Your task to perform on an android device: delete browsing data in the chrome app Image 0: 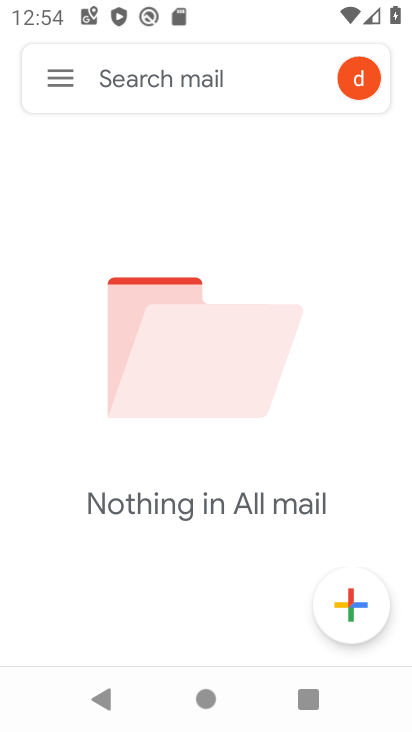
Step 0: press home button
Your task to perform on an android device: delete browsing data in the chrome app Image 1: 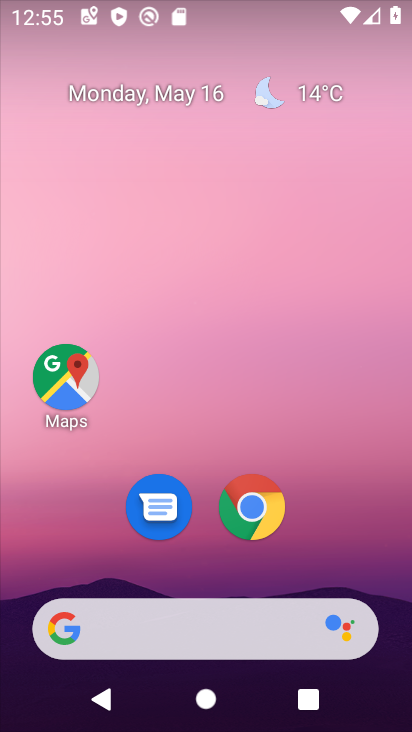
Step 1: click (255, 506)
Your task to perform on an android device: delete browsing data in the chrome app Image 2: 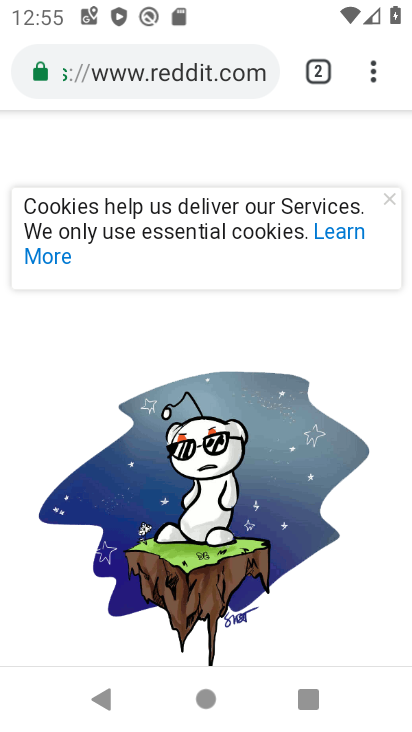
Step 2: click (376, 60)
Your task to perform on an android device: delete browsing data in the chrome app Image 3: 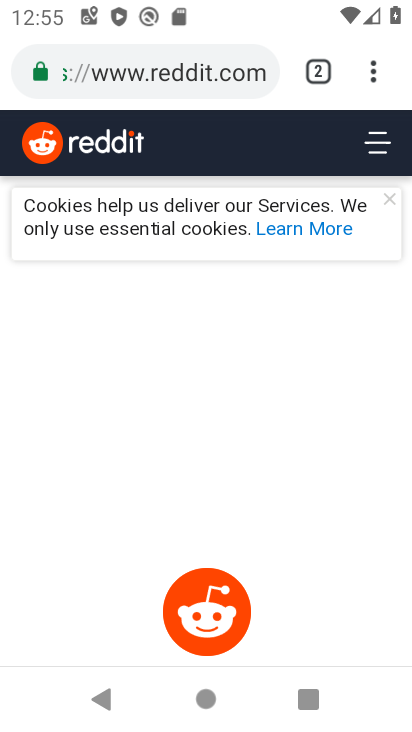
Step 3: click (376, 60)
Your task to perform on an android device: delete browsing data in the chrome app Image 4: 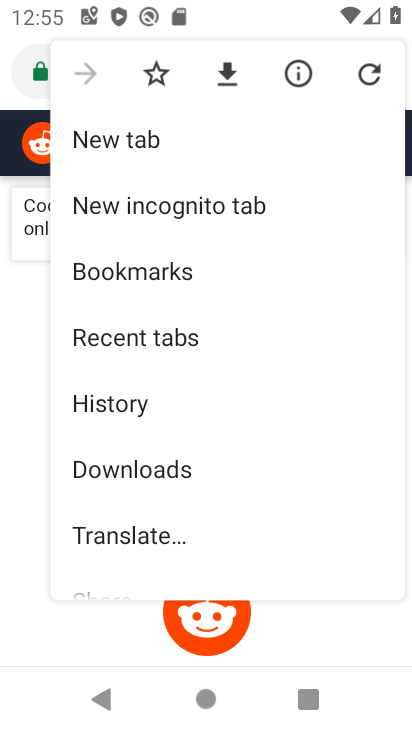
Step 4: drag from (141, 551) to (223, 222)
Your task to perform on an android device: delete browsing data in the chrome app Image 5: 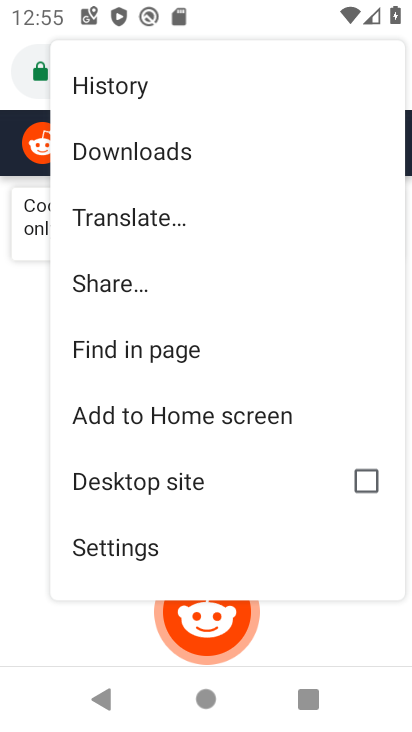
Step 5: click (125, 539)
Your task to perform on an android device: delete browsing data in the chrome app Image 6: 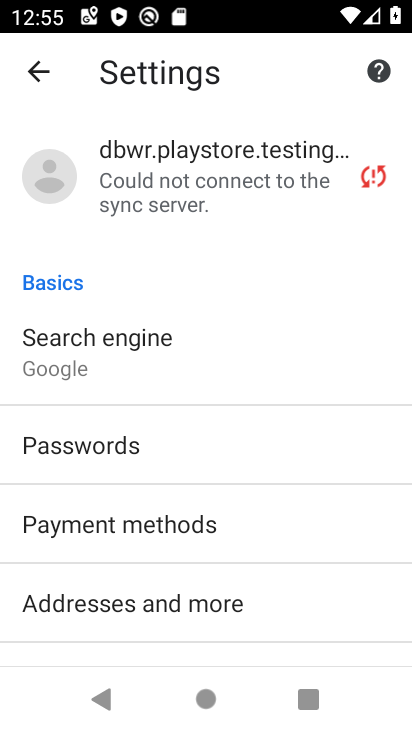
Step 6: drag from (57, 643) to (198, 264)
Your task to perform on an android device: delete browsing data in the chrome app Image 7: 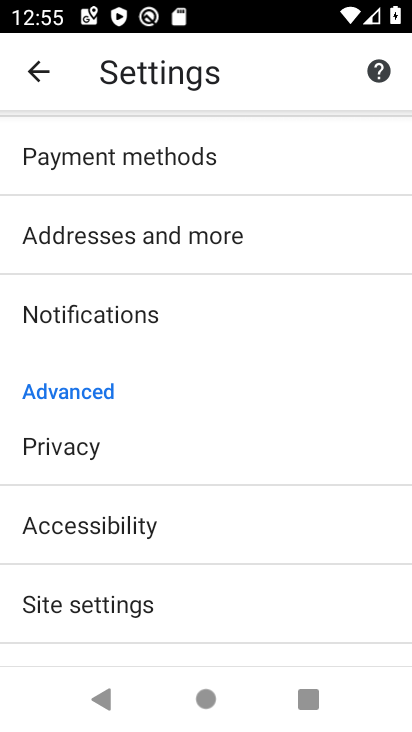
Step 7: click (21, 452)
Your task to perform on an android device: delete browsing data in the chrome app Image 8: 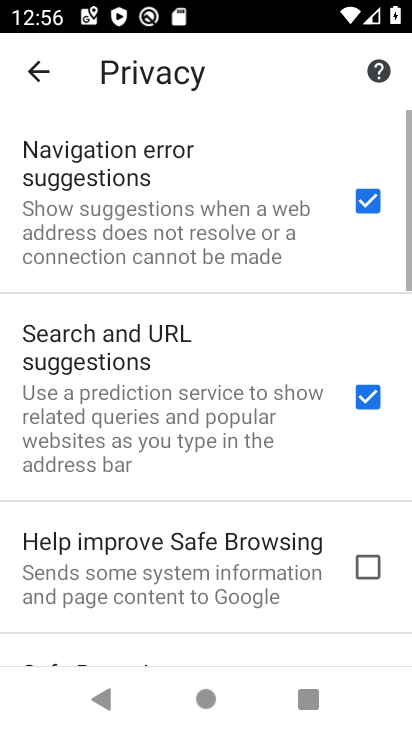
Step 8: drag from (5, 584) to (208, 220)
Your task to perform on an android device: delete browsing data in the chrome app Image 9: 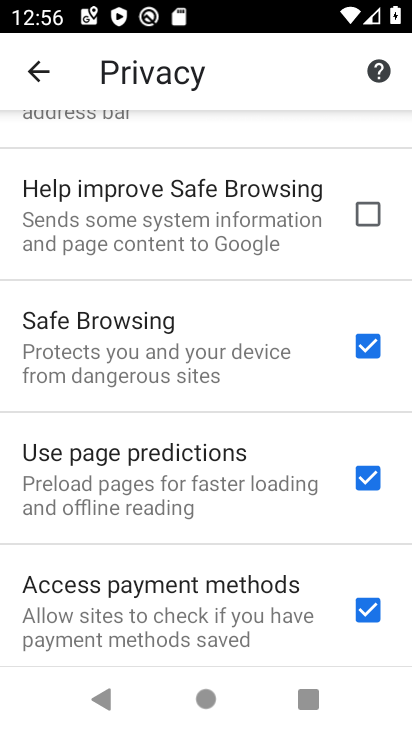
Step 9: drag from (154, 645) to (296, 269)
Your task to perform on an android device: delete browsing data in the chrome app Image 10: 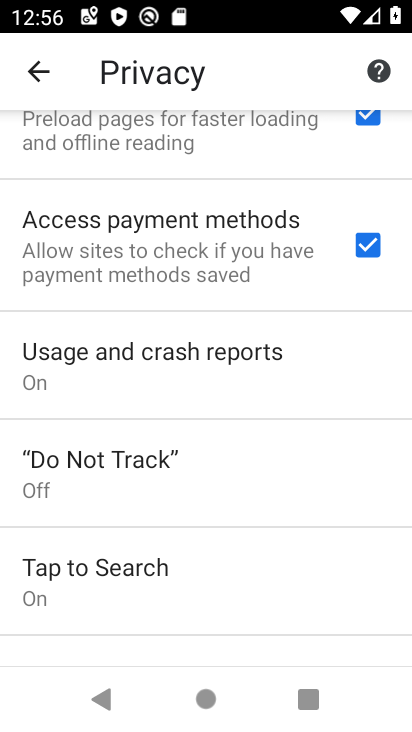
Step 10: drag from (55, 611) to (204, 233)
Your task to perform on an android device: delete browsing data in the chrome app Image 11: 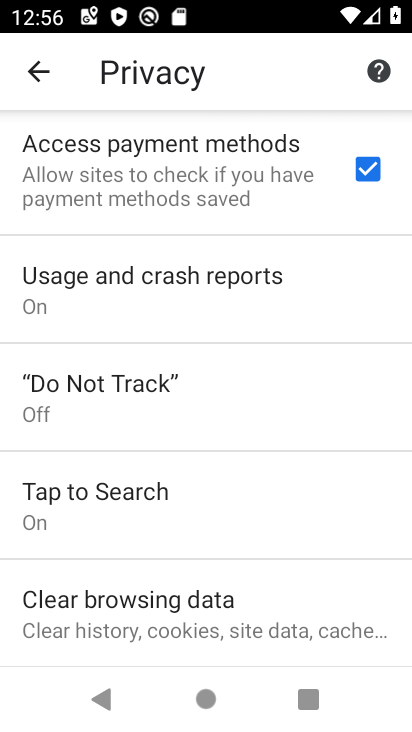
Step 11: click (110, 590)
Your task to perform on an android device: delete browsing data in the chrome app Image 12: 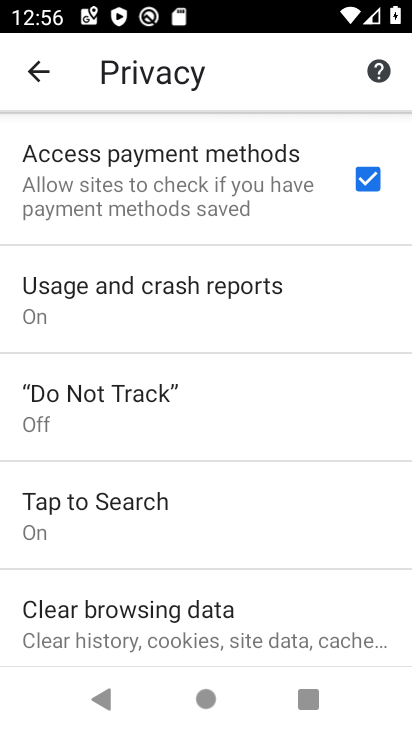
Step 12: click (100, 611)
Your task to perform on an android device: delete browsing data in the chrome app Image 13: 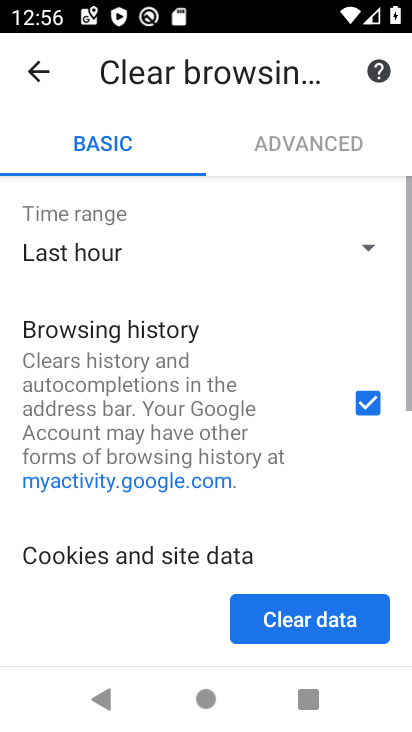
Step 13: click (333, 624)
Your task to perform on an android device: delete browsing data in the chrome app Image 14: 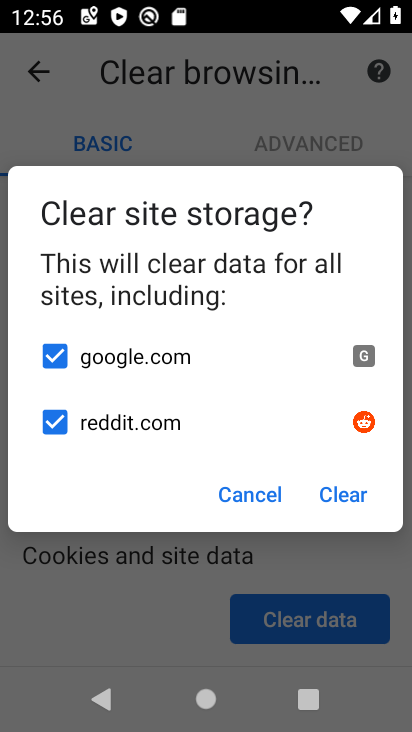
Step 14: click (340, 494)
Your task to perform on an android device: delete browsing data in the chrome app Image 15: 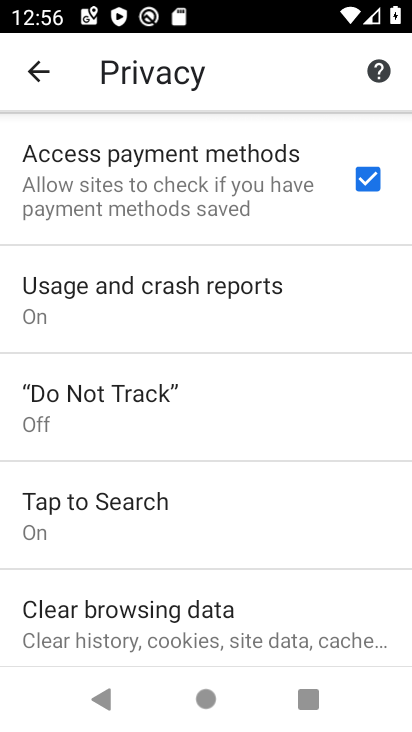
Step 15: task complete